Your task to perform on an android device: What's the weather today? Image 0: 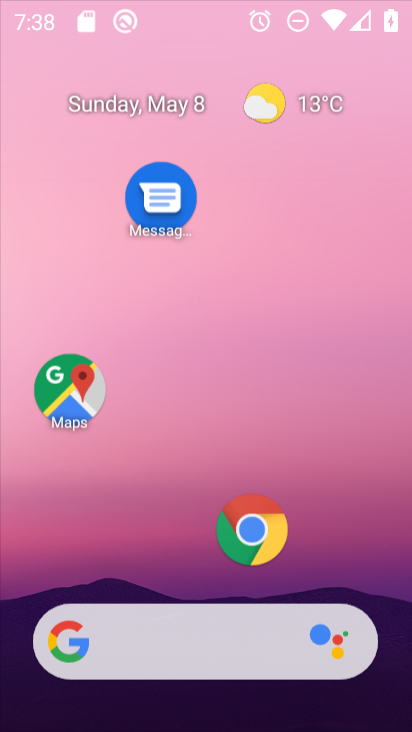
Step 0: press home button
Your task to perform on an android device: What's the weather today? Image 1: 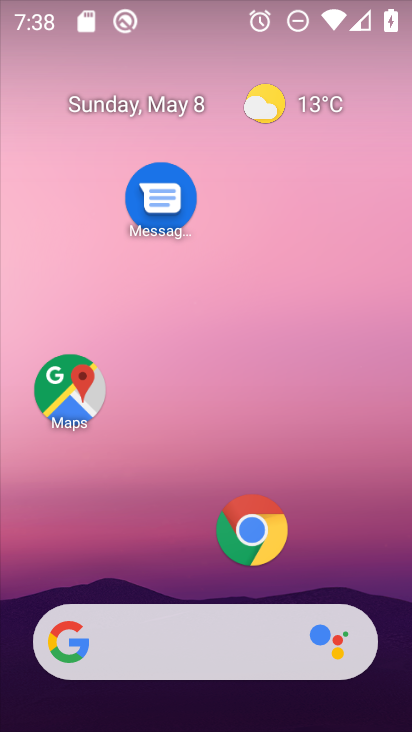
Step 1: click (306, 97)
Your task to perform on an android device: What's the weather today? Image 2: 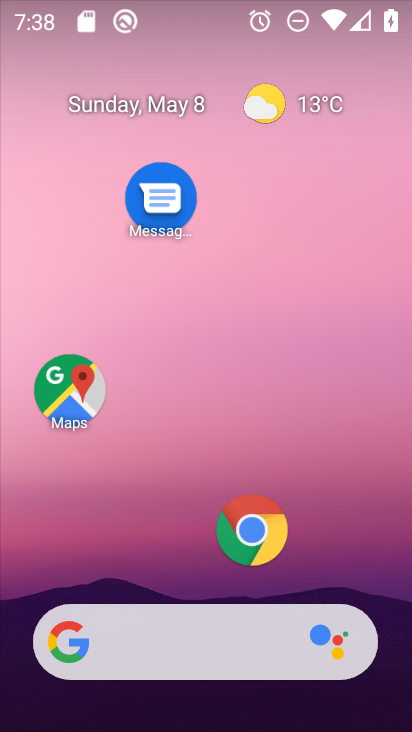
Step 2: click (294, 101)
Your task to perform on an android device: What's the weather today? Image 3: 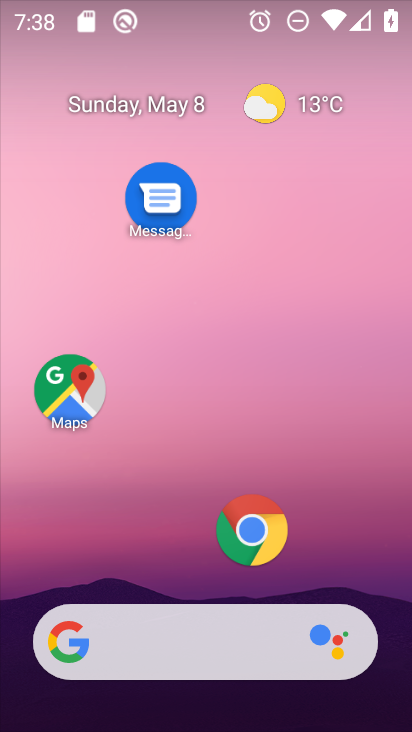
Step 3: click (262, 104)
Your task to perform on an android device: What's the weather today? Image 4: 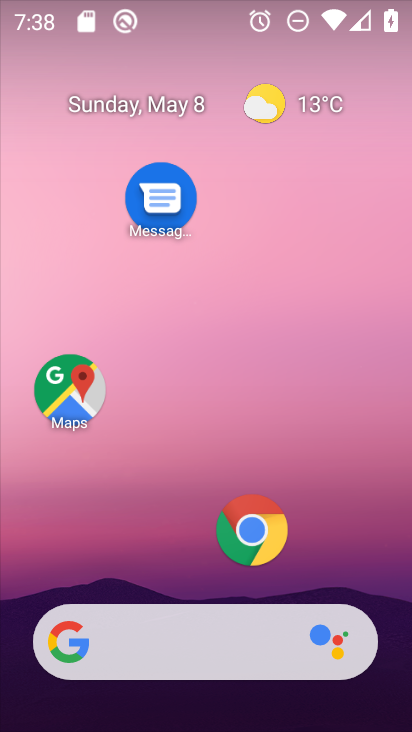
Step 4: click (332, 100)
Your task to perform on an android device: What's the weather today? Image 5: 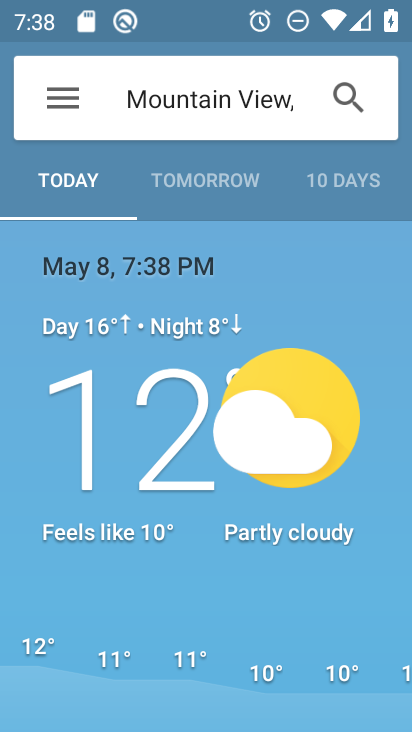
Step 5: task complete